Your task to perform on an android device: turn off airplane mode Image 0: 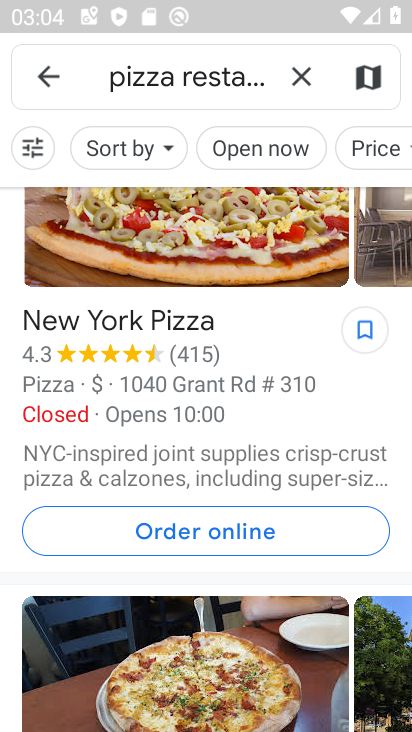
Step 0: press back button
Your task to perform on an android device: turn off airplane mode Image 1: 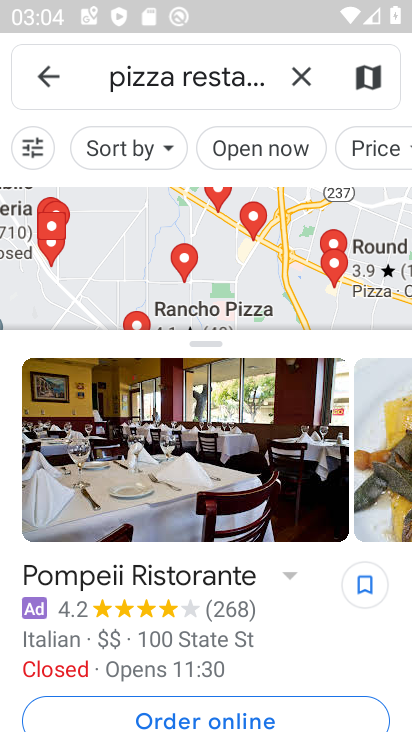
Step 1: press back button
Your task to perform on an android device: turn off airplane mode Image 2: 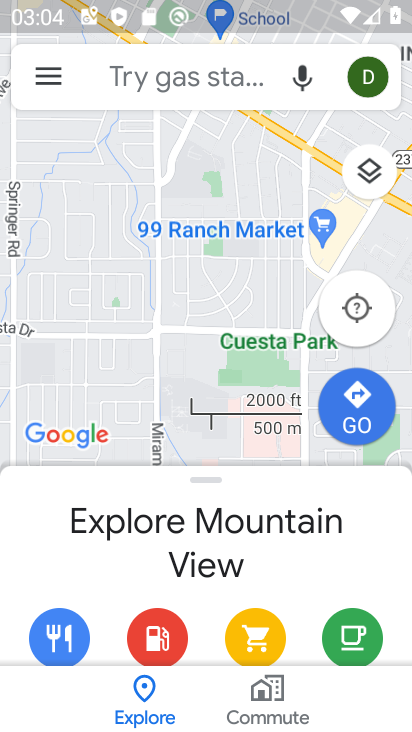
Step 2: press back button
Your task to perform on an android device: turn off airplane mode Image 3: 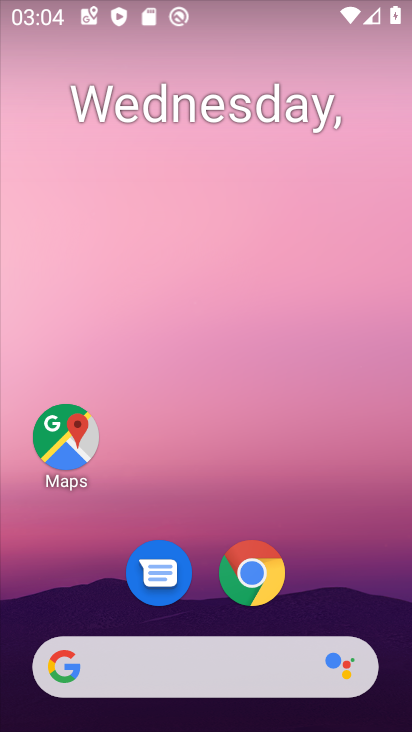
Step 3: drag from (354, 576) to (295, 100)
Your task to perform on an android device: turn off airplane mode Image 4: 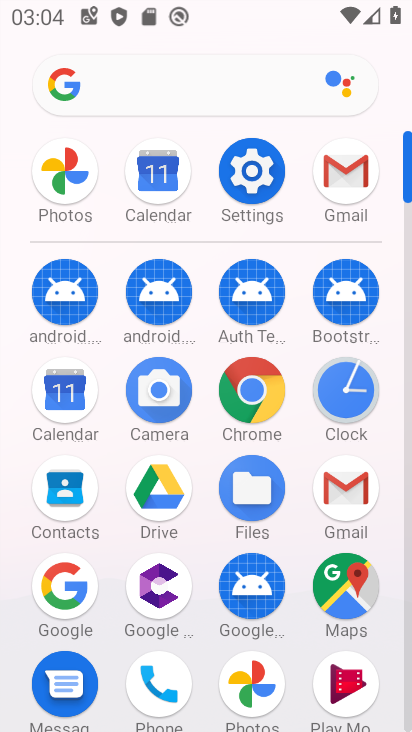
Step 4: click (252, 173)
Your task to perform on an android device: turn off airplane mode Image 5: 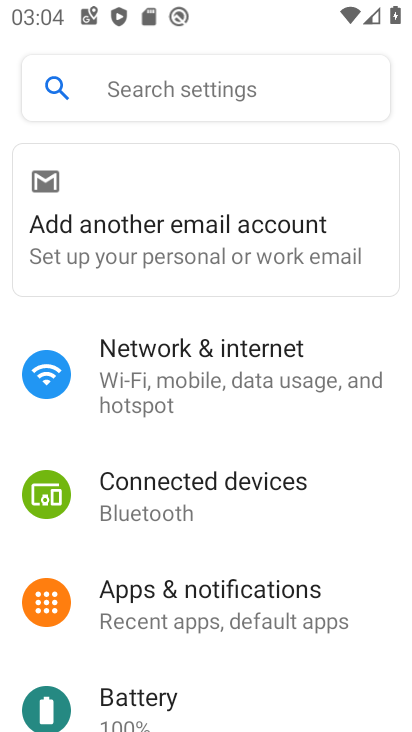
Step 5: click (238, 367)
Your task to perform on an android device: turn off airplane mode Image 6: 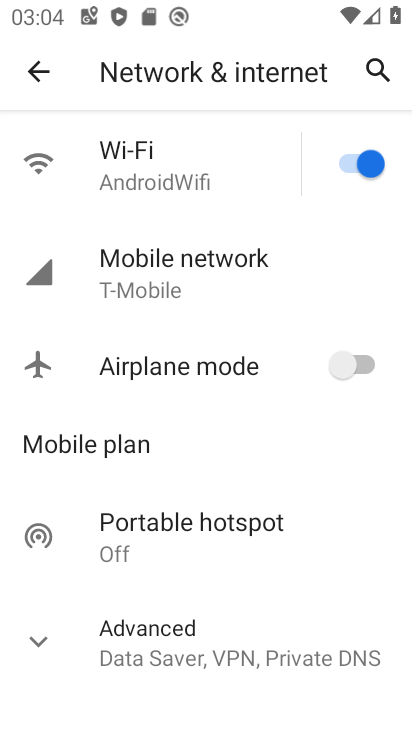
Step 6: task complete